Your task to perform on an android device: Go to Yahoo.com Image 0: 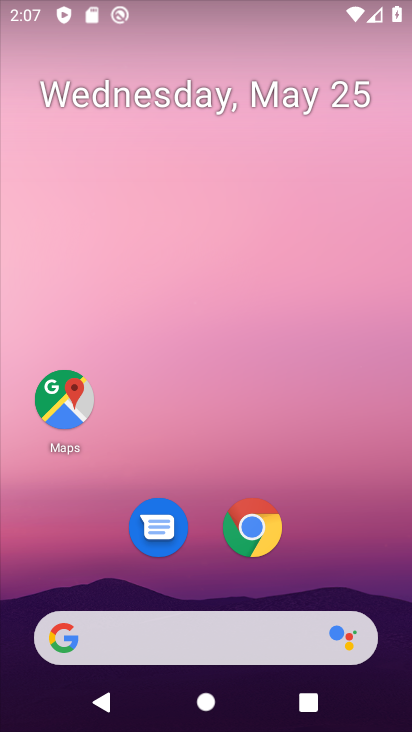
Step 0: click (264, 520)
Your task to perform on an android device: Go to Yahoo.com Image 1: 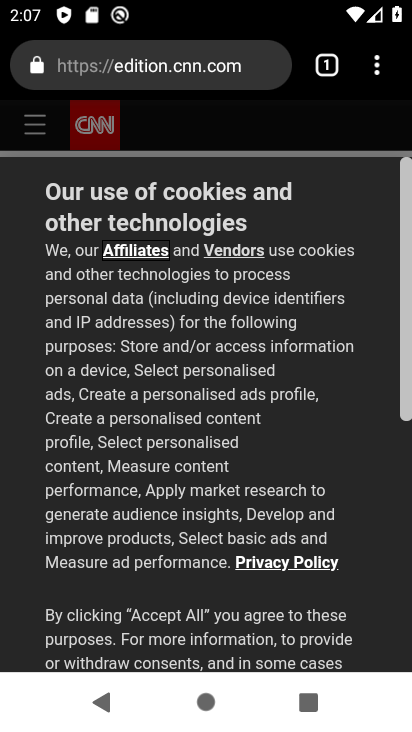
Step 1: click (326, 58)
Your task to perform on an android device: Go to Yahoo.com Image 2: 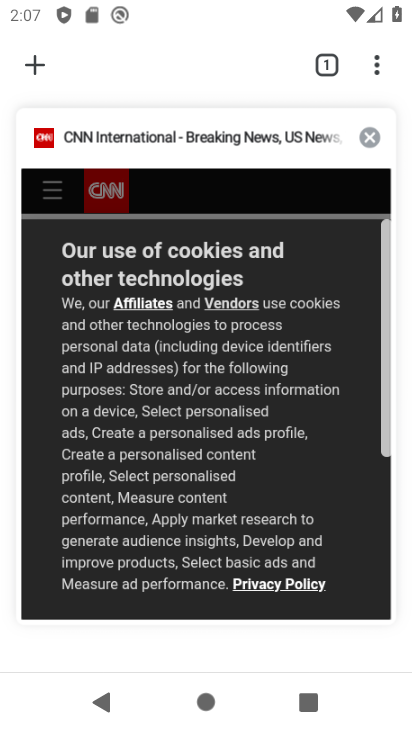
Step 2: click (37, 65)
Your task to perform on an android device: Go to Yahoo.com Image 3: 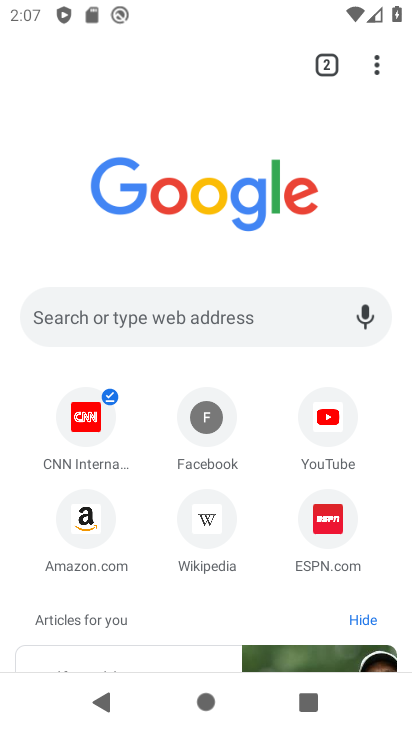
Step 3: click (110, 323)
Your task to perform on an android device: Go to Yahoo.com Image 4: 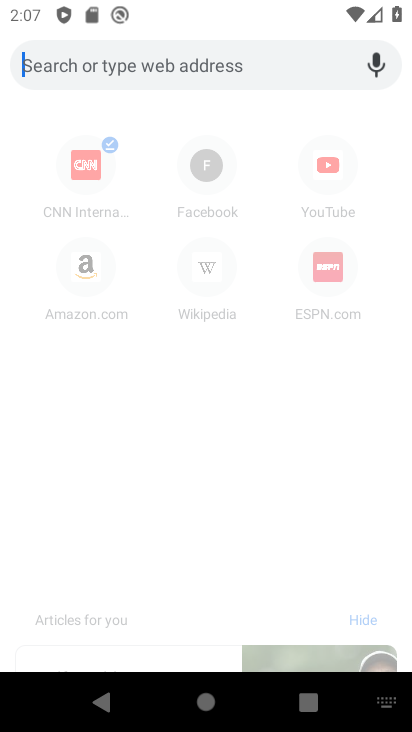
Step 4: type "yahoo.com"
Your task to perform on an android device: Go to Yahoo.com Image 5: 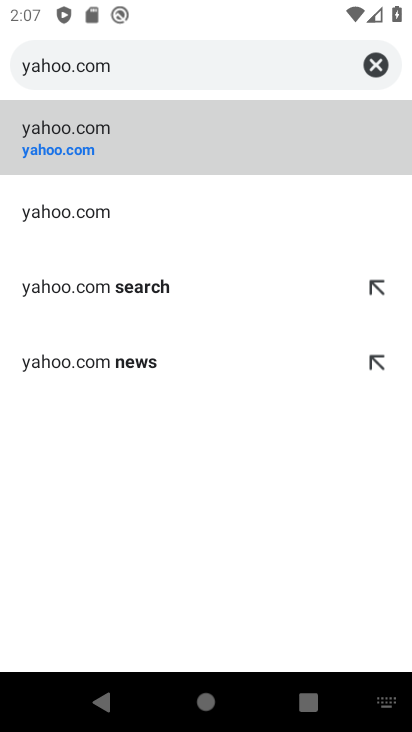
Step 5: click (82, 133)
Your task to perform on an android device: Go to Yahoo.com Image 6: 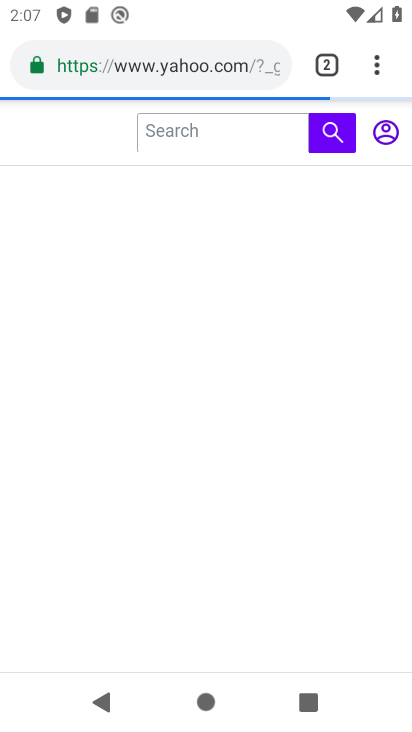
Step 6: task complete